Your task to perform on an android device: turn smart compose on in the gmail app Image 0: 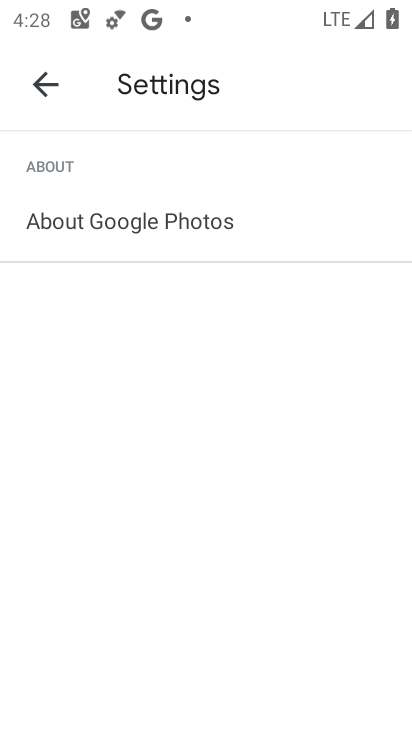
Step 0: press home button
Your task to perform on an android device: turn smart compose on in the gmail app Image 1: 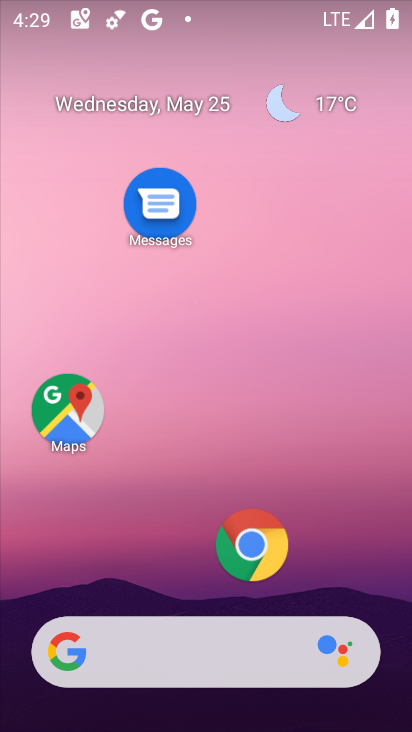
Step 1: drag from (346, 561) to (329, 27)
Your task to perform on an android device: turn smart compose on in the gmail app Image 2: 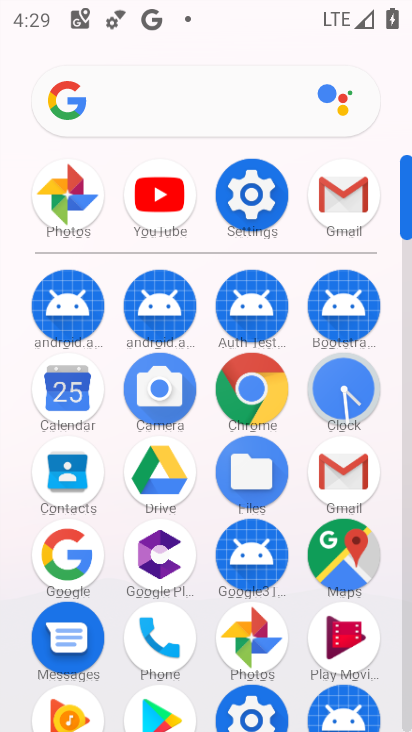
Step 2: click (353, 204)
Your task to perform on an android device: turn smart compose on in the gmail app Image 3: 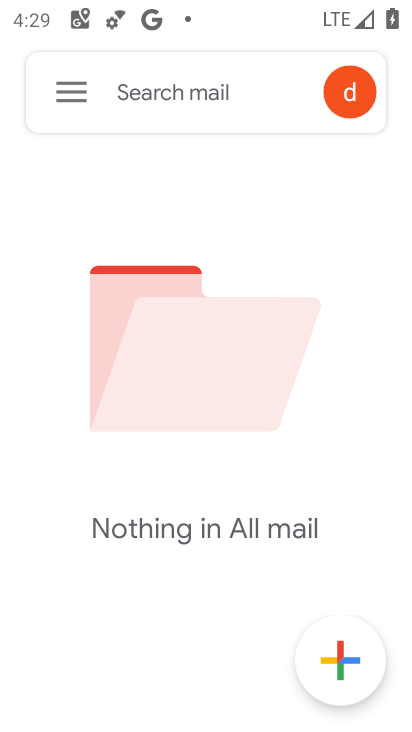
Step 3: click (83, 97)
Your task to perform on an android device: turn smart compose on in the gmail app Image 4: 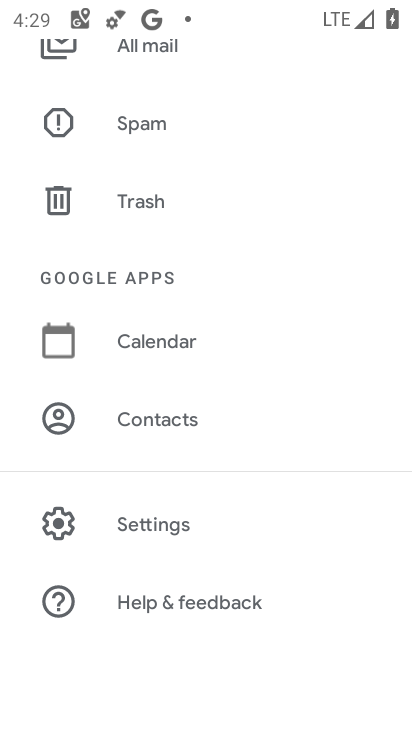
Step 4: click (162, 526)
Your task to perform on an android device: turn smart compose on in the gmail app Image 5: 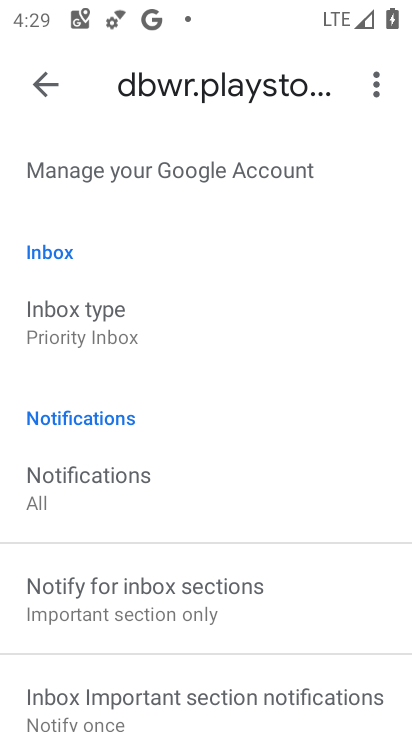
Step 5: drag from (320, 598) to (350, 118)
Your task to perform on an android device: turn smart compose on in the gmail app Image 6: 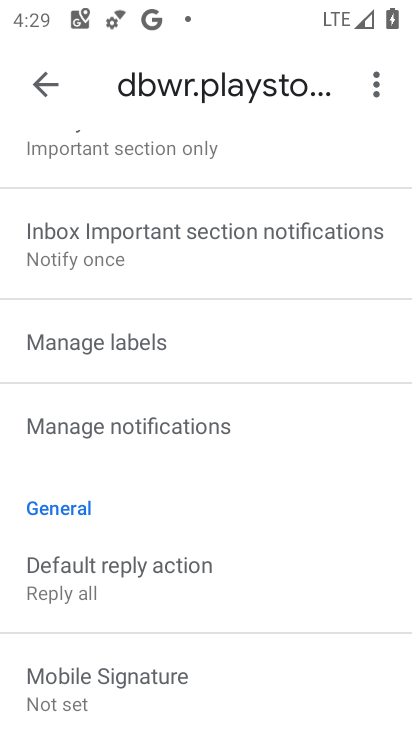
Step 6: drag from (307, 565) to (288, 119)
Your task to perform on an android device: turn smart compose on in the gmail app Image 7: 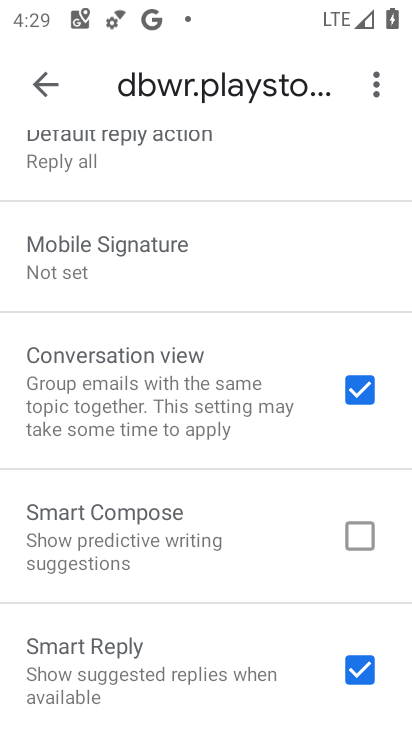
Step 7: click (368, 540)
Your task to perform on an android device: turn smart compose on in the gmail app Image 8: 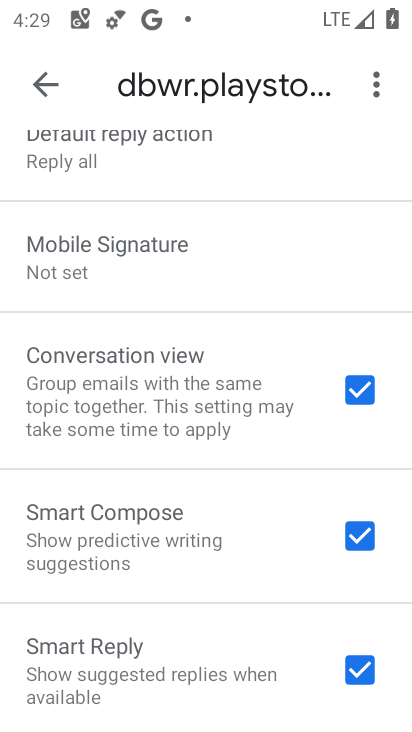
Step 8: task complete